Your task to perform on an android device: Go to Amazon Image 0: 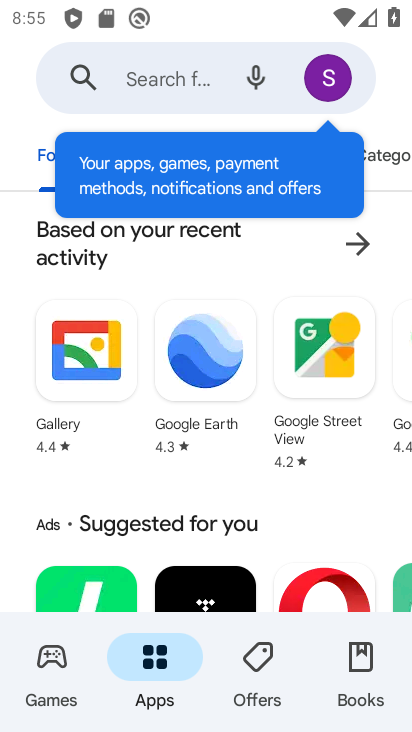
Step 0: press home button
Your task to perform on an android device: Go to Amazon Image 1: 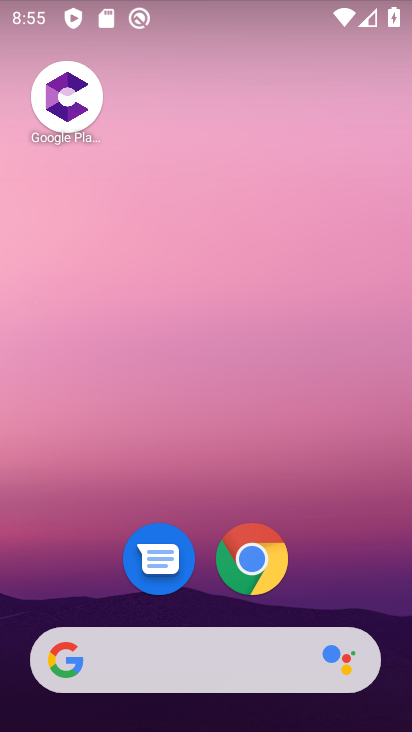
Step 1: click (252, 561)
Your task to perform on an android device: Go to Amazon Image 2: 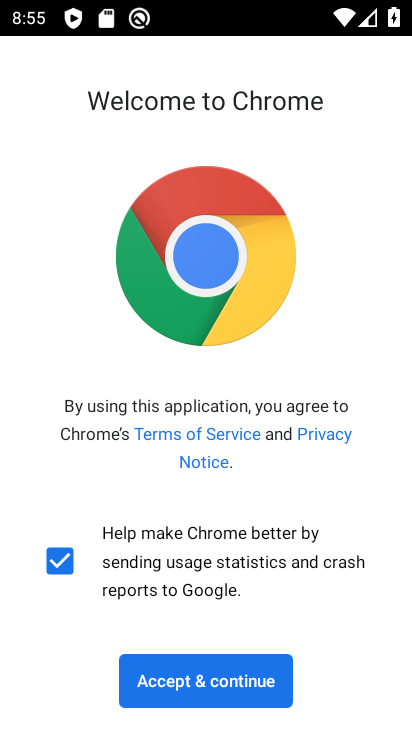
Step 2: click (196, 689)
Your task to perform on an android device: Go to Amazon Image 3: 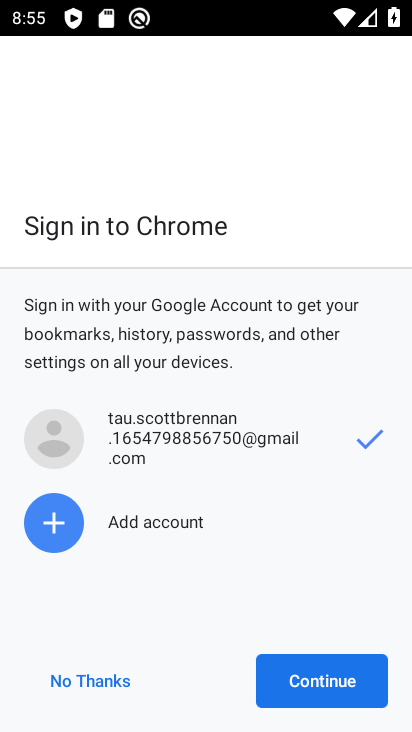
Step 3: click (311, 674)
Your task to perform on an android device: Go to Amazon Image 4: 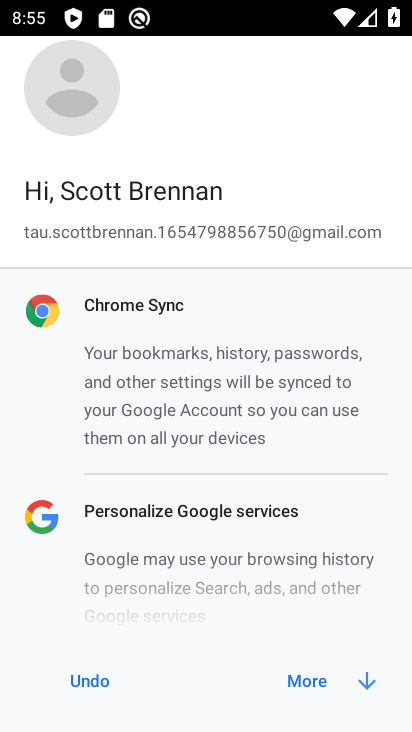
Step 4: click (308, 686)
Your task to perform on an android device: Go to Amazon Image 5: 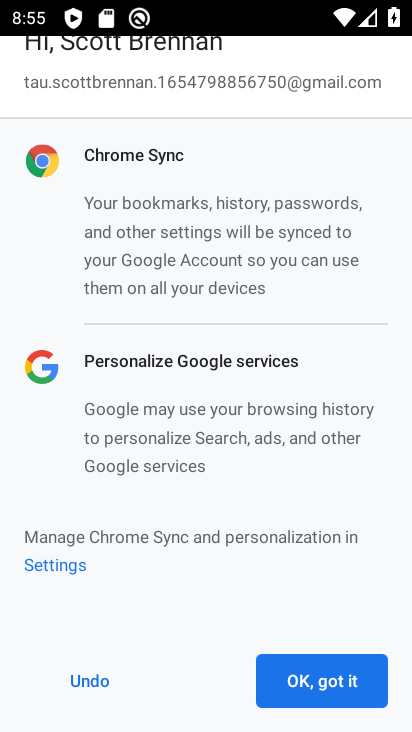
Step 5: click (307, 686)
Your task to perform on an android device: Go to Amazon Image 6: 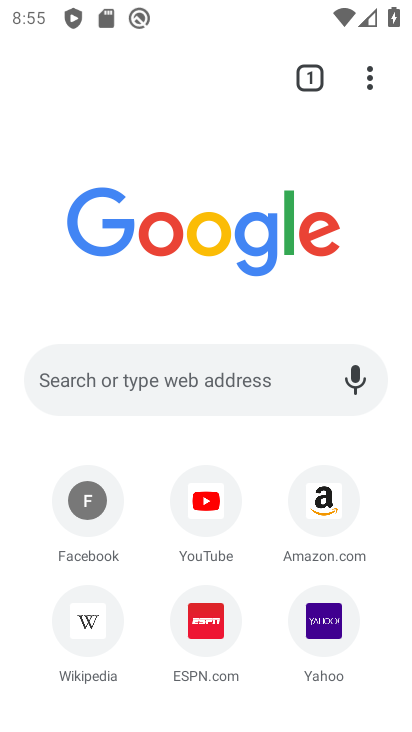
Step 6: click (321, 502)
Your task to perform on an android device: Go to Amazon Image 7: 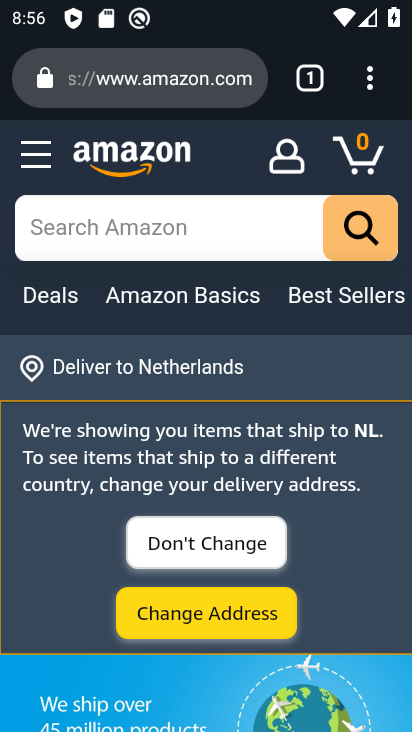
Step 7: task complete